Your task to perform on an android device: turn on airplane mode Image 0: 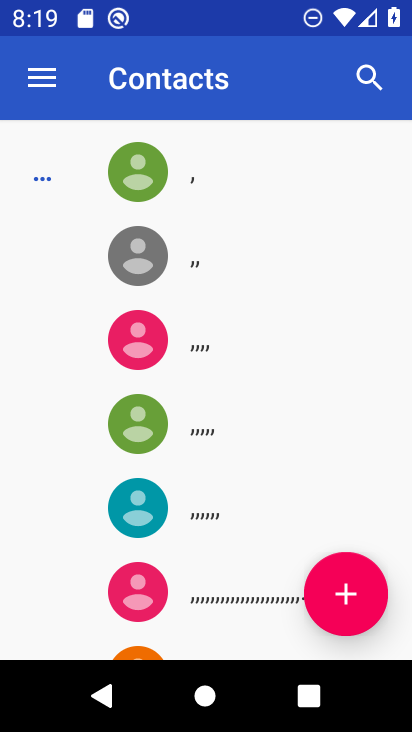
Step 0: press home button
Your task to perform on an android device: turn on airplane mode Image 1: 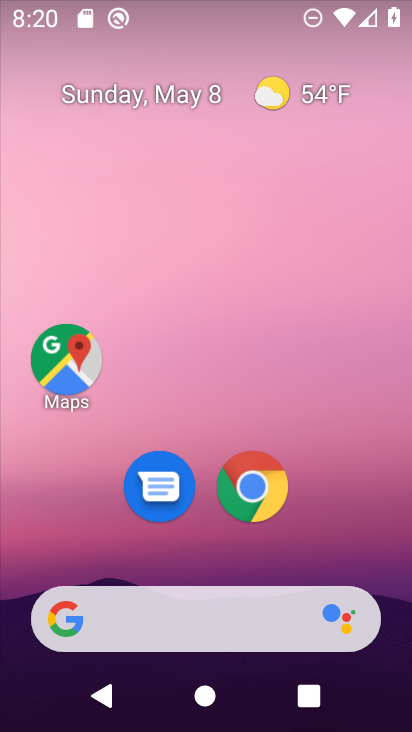
Step 1: drag from (222, 375) to (257, 220)
Your task to perform on an android device: turn on airplane mode Image 2: 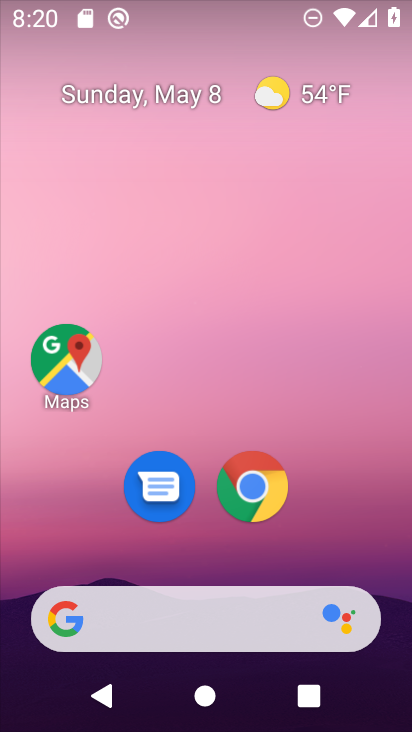
Step 2: drag from (214, 566) to (245, 273)
Your task to perform on an android device: turn on airplane mode Image 3: 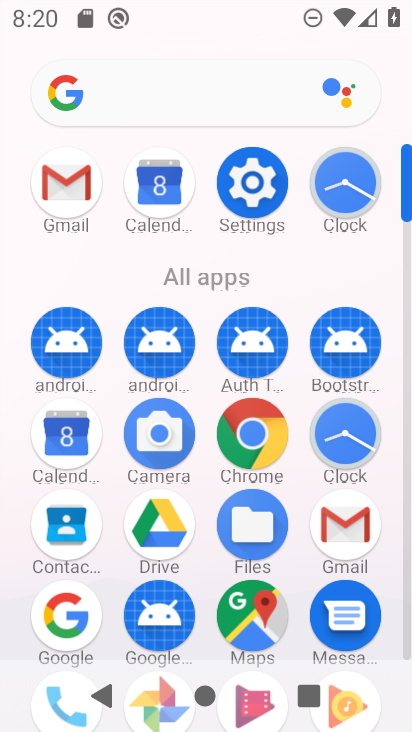
Step 3: click (264, 177)
Your task to perform on an android device: turn on airplane mode Image 4: 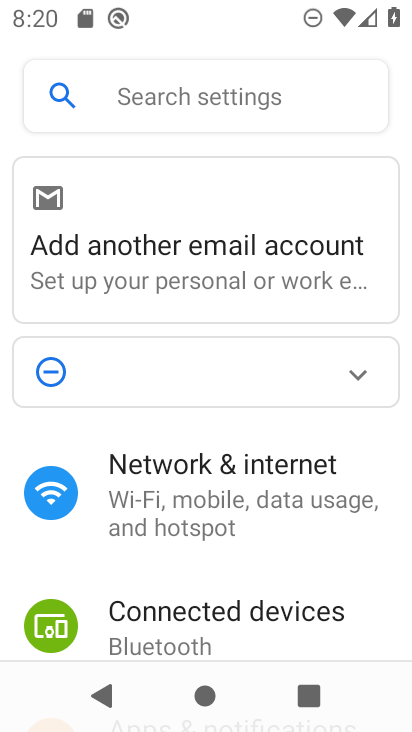
Step 4: click (251, 506)
Your task to perform on an android device: turn on airplane mode Image 5: 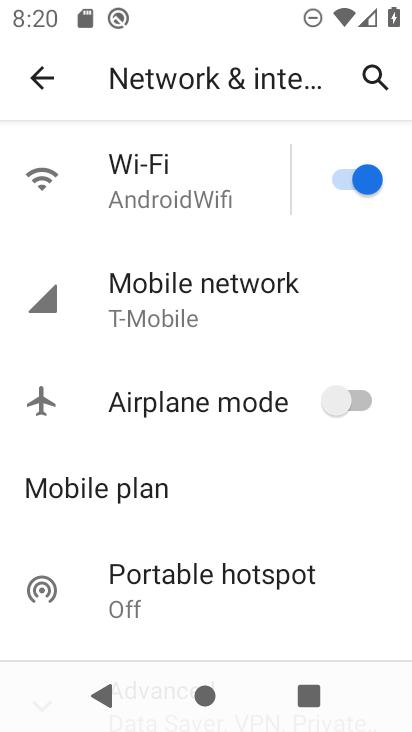
Step 5: click (339, 412)
Your task to perform on an android device: turn on airplane mode Image 6: 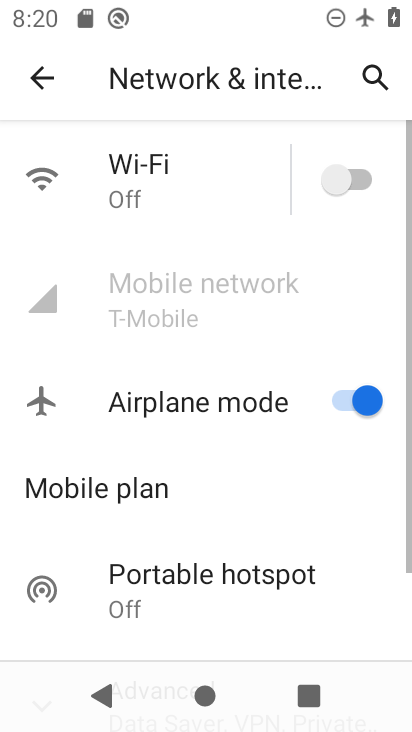
Step 6: task complete